Your task to perform on an android device: delete the emails in spam in the gmail app Image 0: 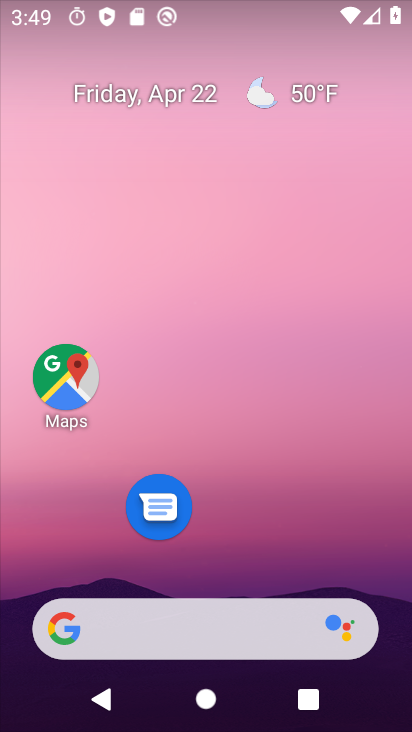
Step 0: drag from (228, 476) to (268, 7)
Your task to perform on an android device: delete the emails in spam in the gmail app Image 1: 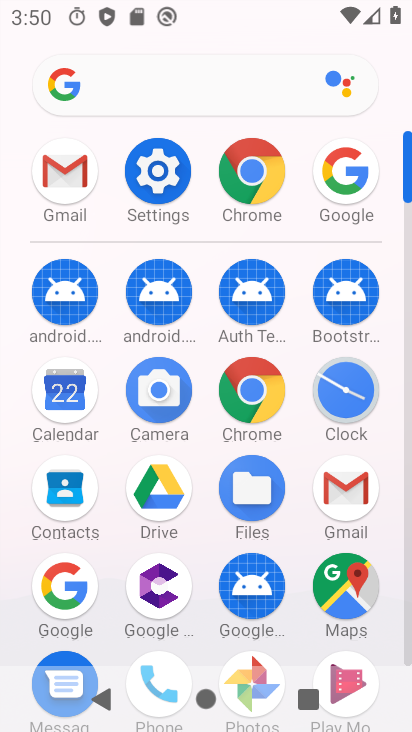
Step 1: click (69, 174)
Your task to perform on an android device: delete the emails in spam in the gmail app Image 2: 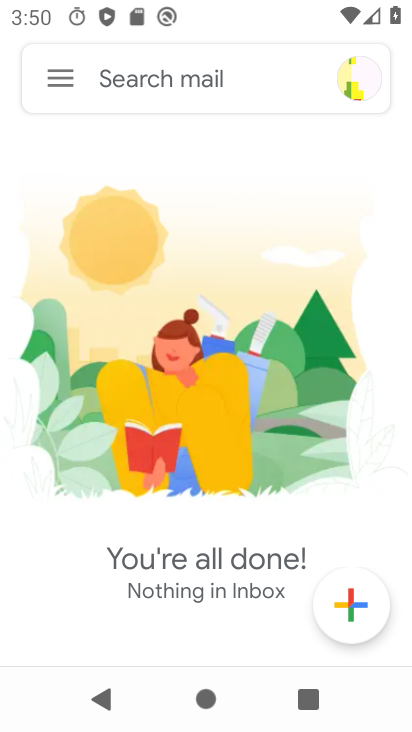
Step 2: click (60, 74)
Your task to perform on an android device: delete the emails in spam in the gmail app Image 3: 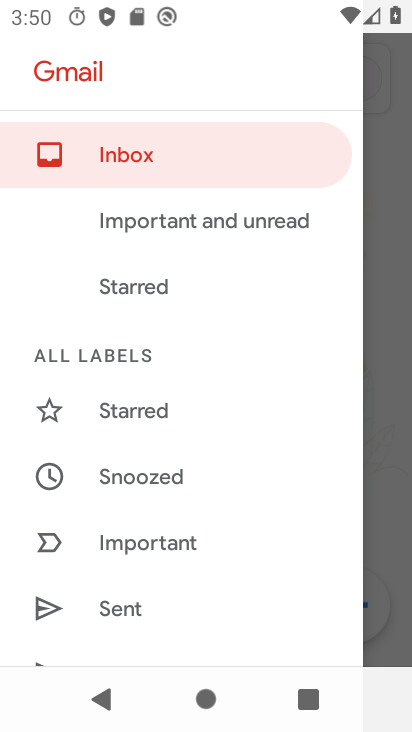
Step 3: drag from (190, 597) to (254, 60)
Your task to perform on an android device: delete the emails in spam in the gmail app Image 4: 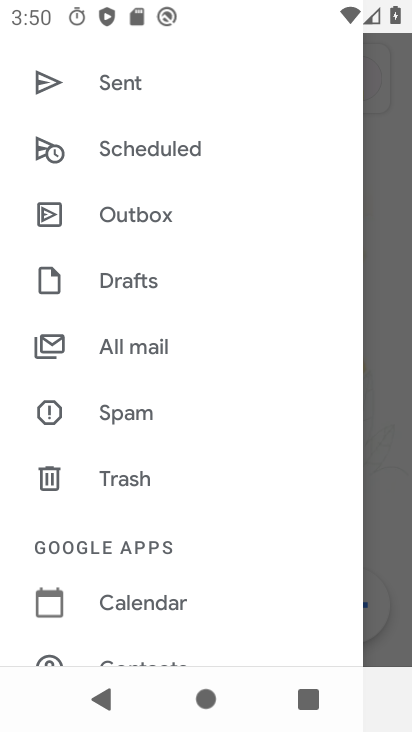
Step 4: click (143, 409)
Your task to perform on an android device: delete the emails in spam in the gmail app Image 5: 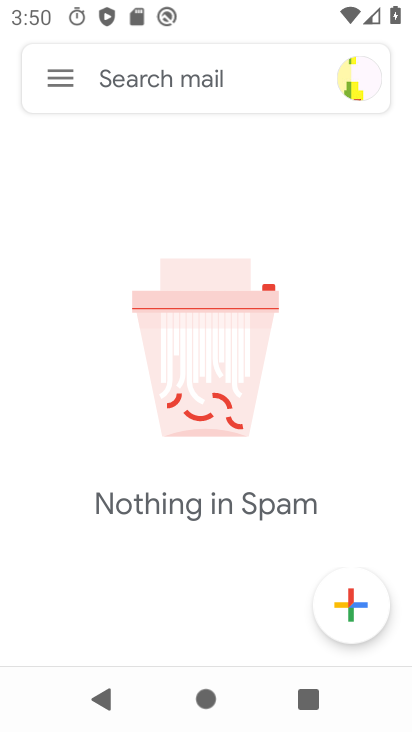
Step 5: task complete